Your task to perform on an android device: turn off wifi Image 0: 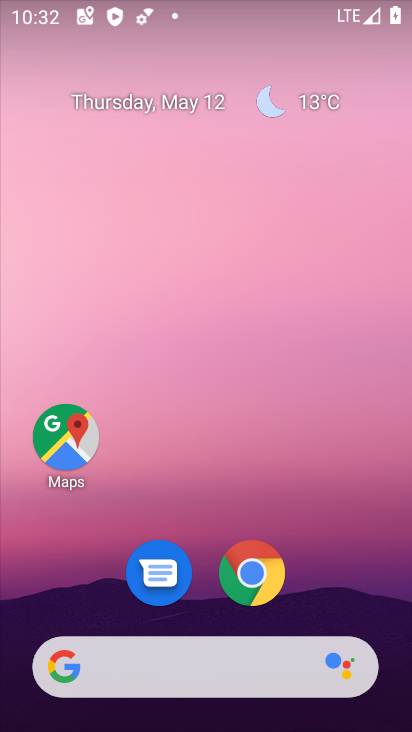
Step 0: drag from (172, 606) to (105, 3)
Your task to perform on an android device: turn off wifi Image 1: 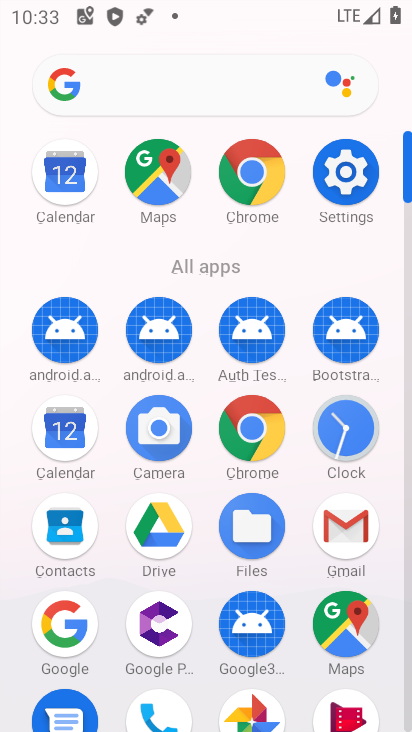
Step 1: click (348, 165)
Your task to perform on an android device: turn off wifi Image 2: 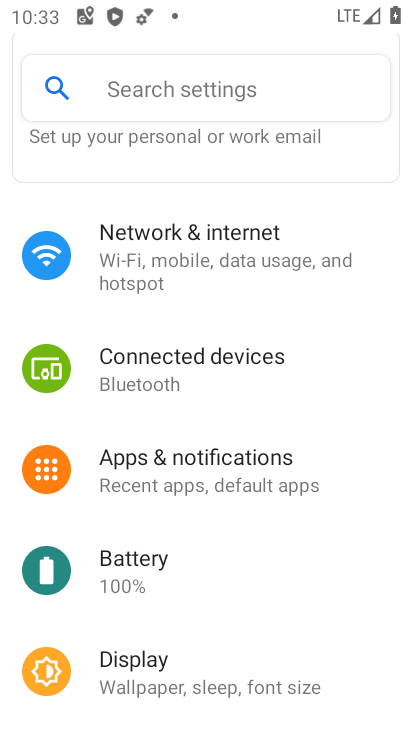
Step 2: click (178, 259)
Your task to perform on an android device: turn off wifi Image 3: 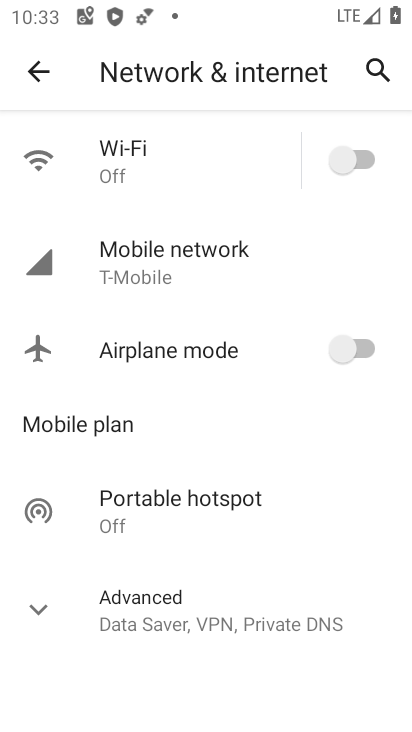
Step 3: task complete